Your task to perform on an android device: toggle location history Image 0: 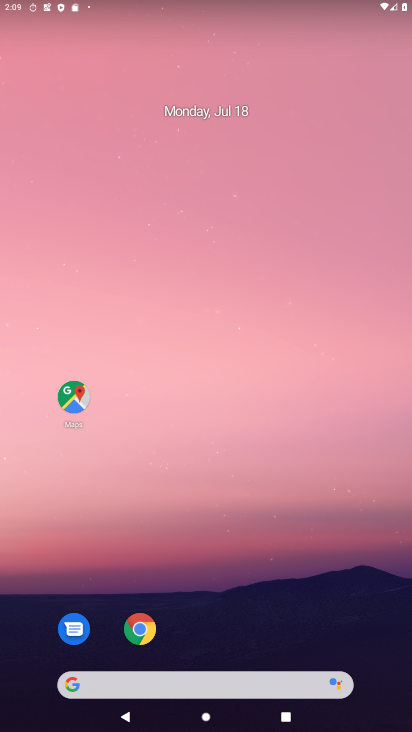
Step 0: press home button
Your task to perform on an android device: toggle location history Image 1: 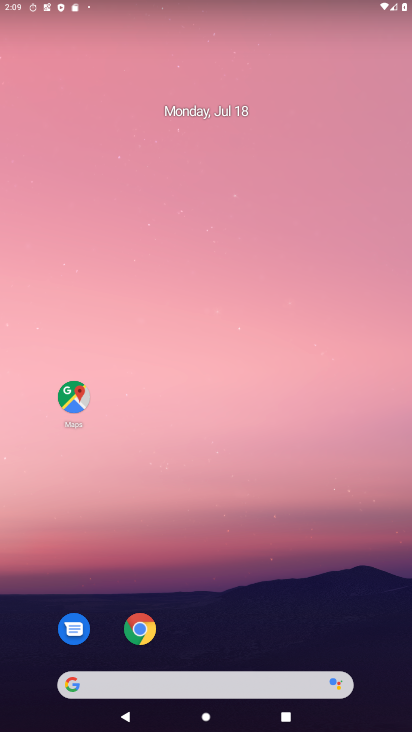
Step 1: drag from (222, 648) to (235, 60)
Your task to perform on an android device: toggle location history Image 2: 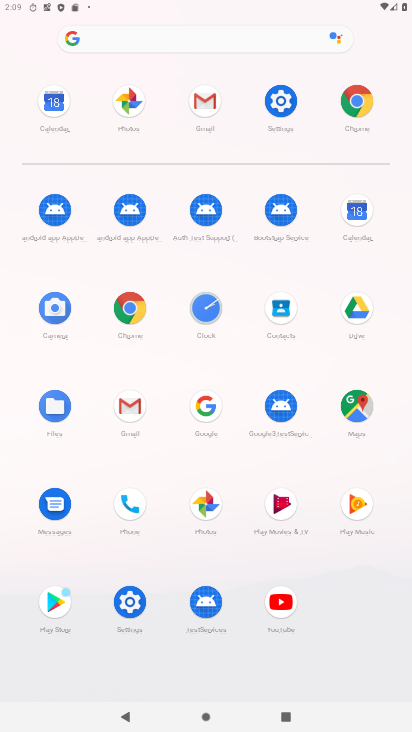
Step 2: click (278, 99)
Your task to perform on an android device: toggle location history Image 3: 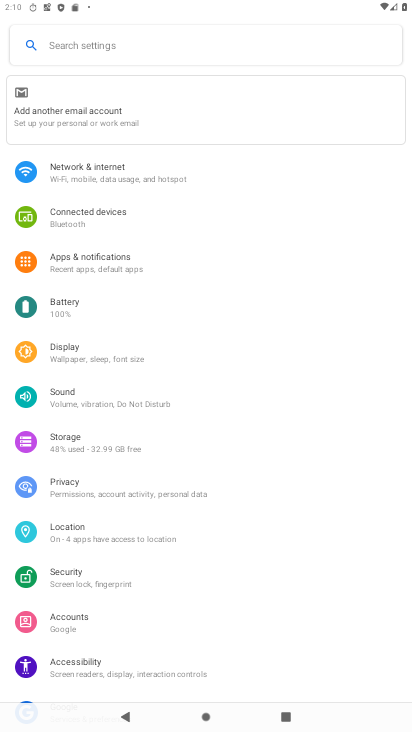
Step 3: click (91, 537)
Your task to perform on an android device: toggle location history Image 4: 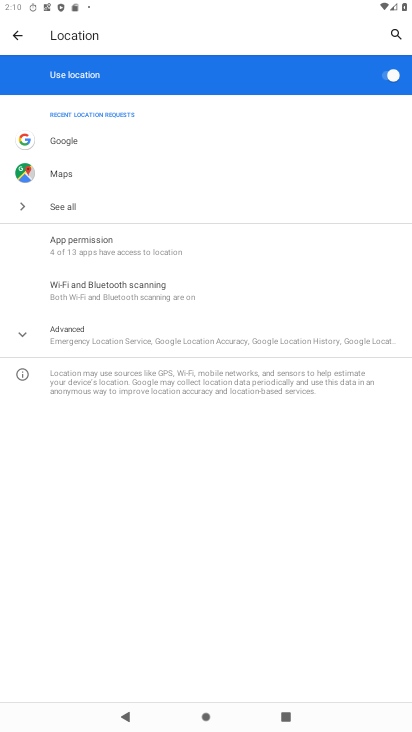
Step 4: click (23, 330)
Your task to perform on an android device: toggle location history Image 5: 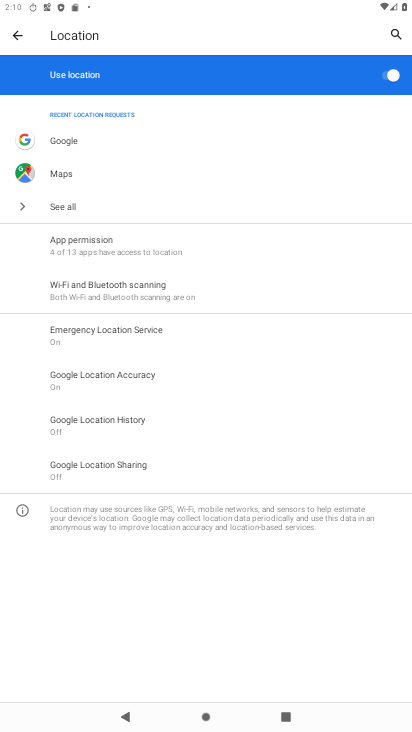
Step 5: click (129, 417)
Your task to perform on an android device: toggle location history Image 6: 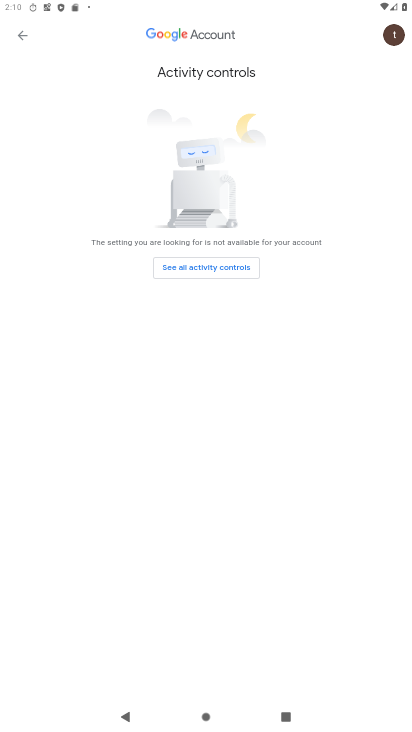
Step 6: click (219, 267)
Your task to perform on an android device: toggle location history Image 7: 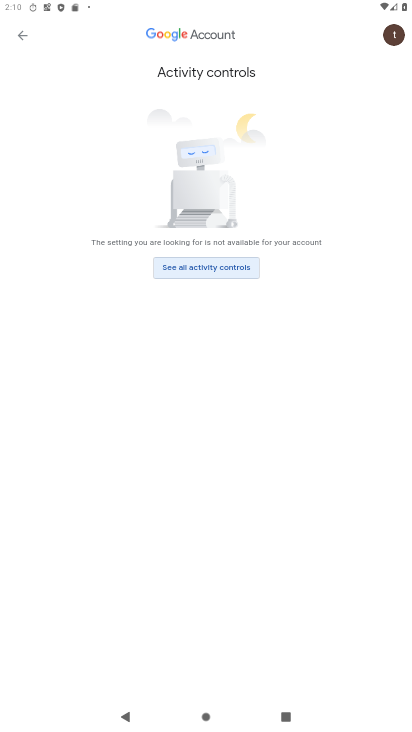
Step 7: click (211, 261)
Your task to perform on an android device: toggle location history Image 8: 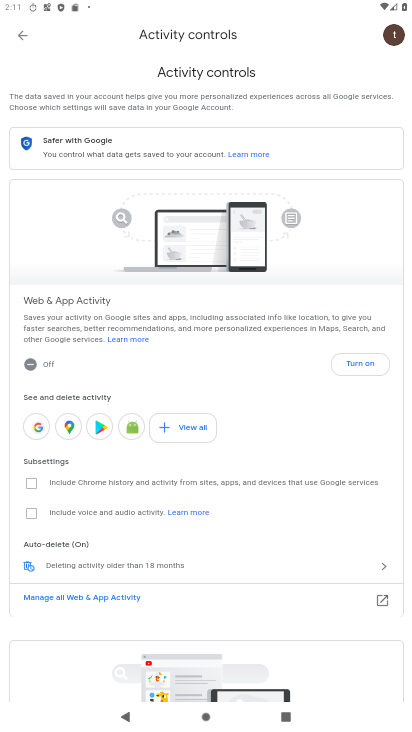
Step 8: click (348, 362)
Your task to perform on an android device: toggle location history Image 9: 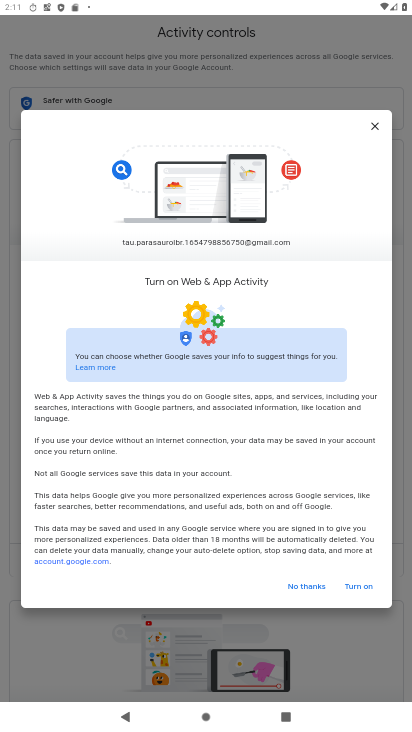
Step 9: click (359, 590)
Your task to perform on an android device: toggle location history Image 10: 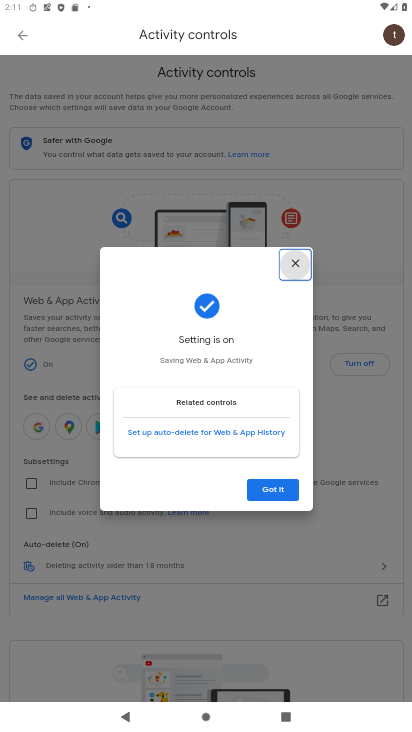
Step 10: click (267, 489)
Your task to perform on an android device: toggle location history Image 11: 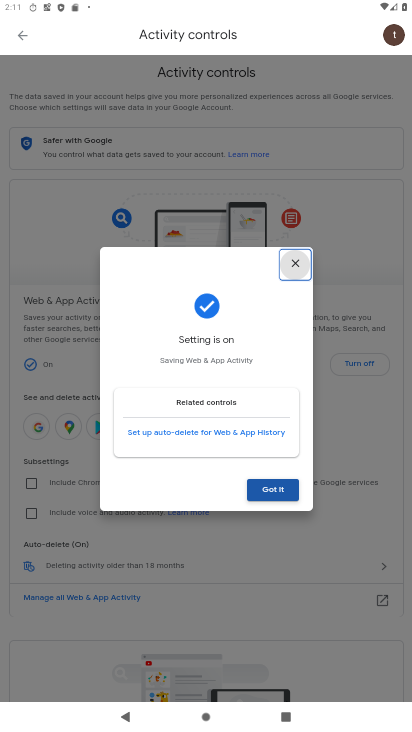
Step 11: task complete